Your task to perform on an android device: toggle notification dots Image 0: 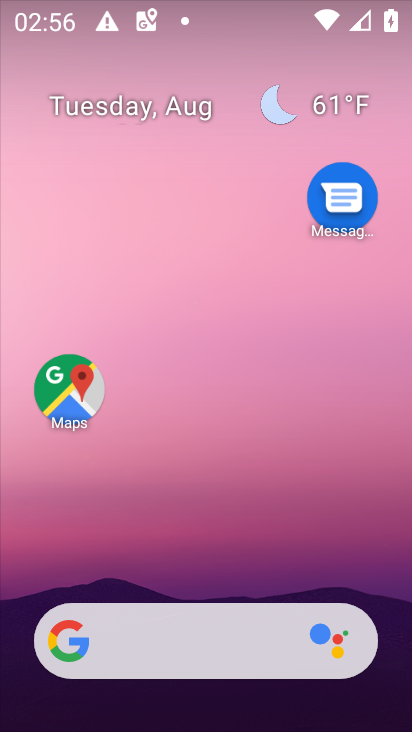
Step 0: drag from (197, 599) to (235, 118)
Your task to perform on an android device: toggle notification dots Image 1: 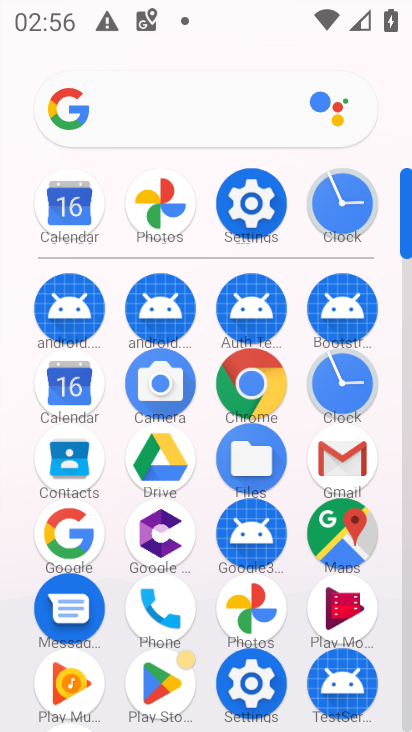
Step 1: click (262, 191)
Your task to perform on an android device: toggle notification dots Image 2: 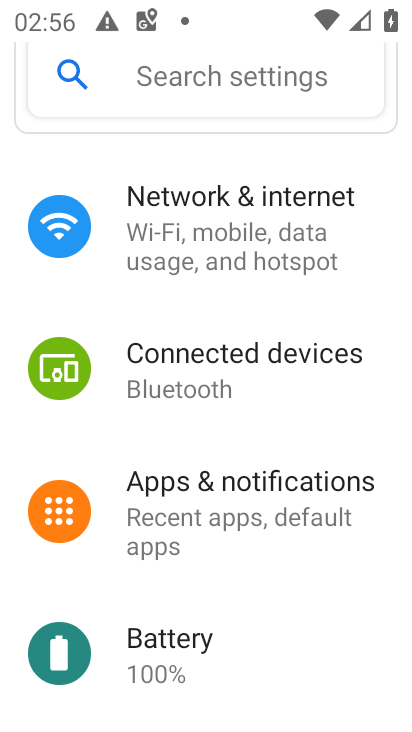
Step 2: drag from (257, 690) to (253, 558)
Your task to perform on an android device: toggle notification dots Image 3: 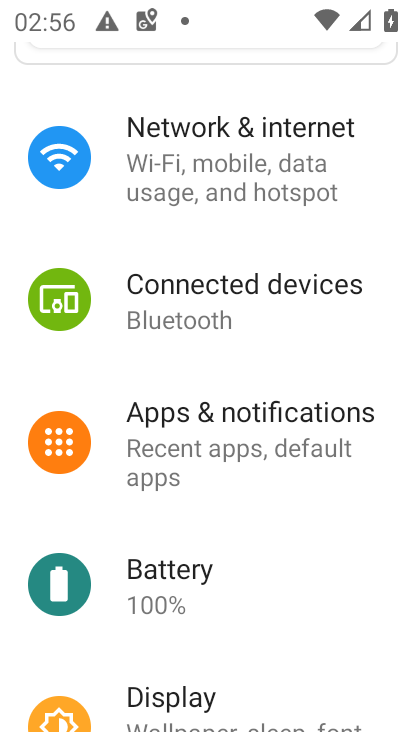
Step 3: click (245, 469)
Your task to perform on an android device: toggle notification dots Image 4: 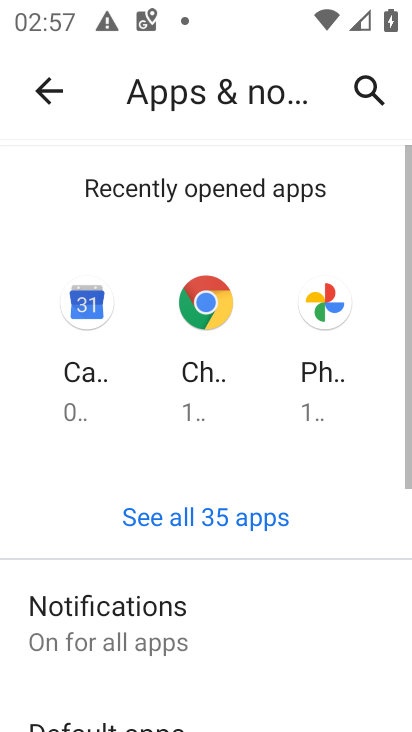
Step 4: drag from (258, 648) to (282, 182)
Your task to perform on an android device: toggle notification dots Image 5: 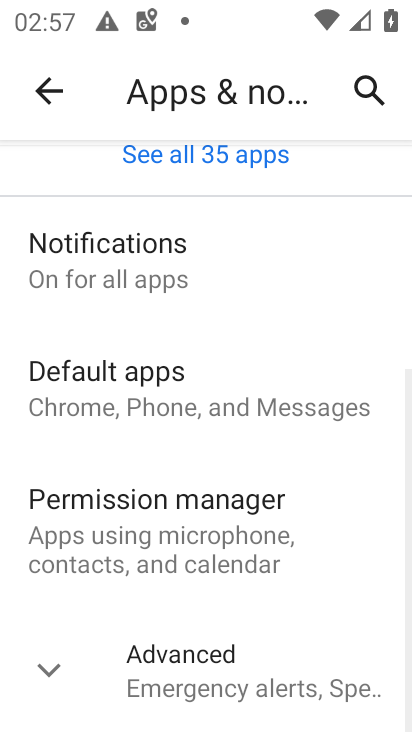
Step 5: drag from (290, 656) to (294, 373)
Your task to perform on an android device: toggle notification dots Image 6: 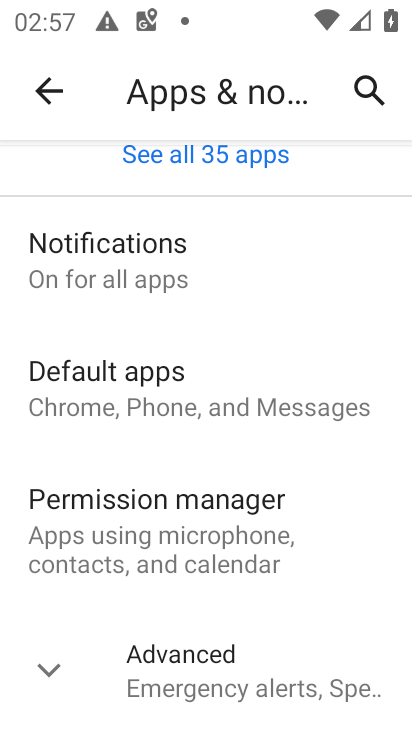
Step 6: click (255, 674)
Your task to perform on an android device: toggle notification dots Image 7: 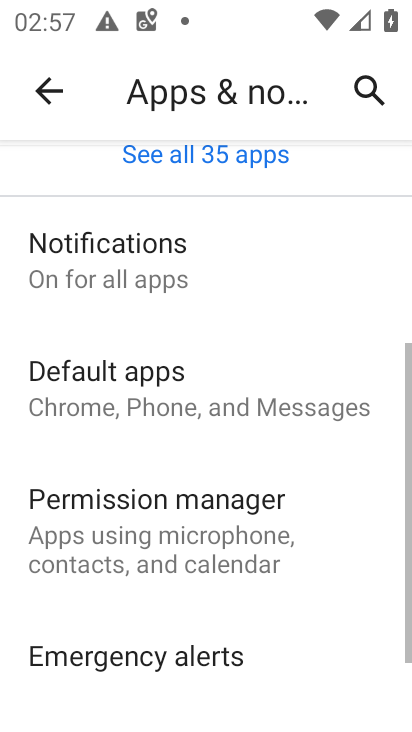
Step 7: drag from (247, 616) to (251, 285)
Your task to perform on an android device: toggle notification dots Image 8: 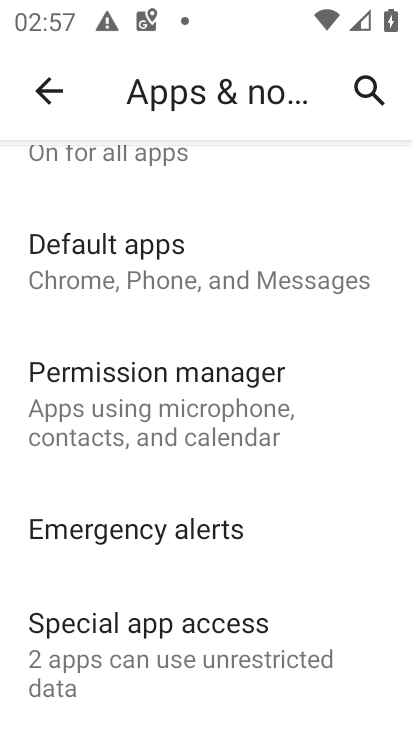
Step 8: drag from (138, 267) to (20, 615)
Your task to perform on an android device: toggle notification dots Image 9: 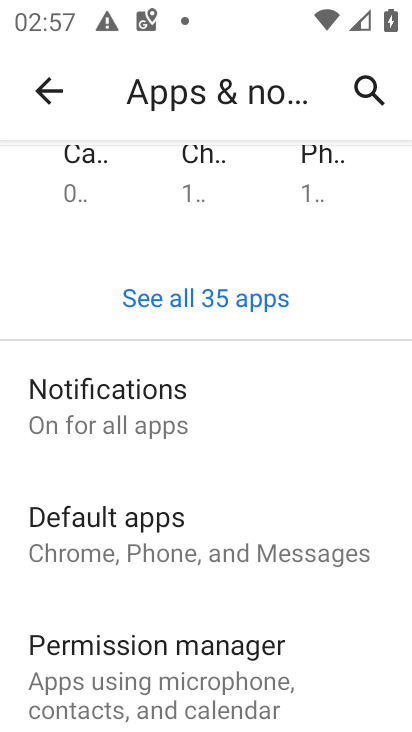
Step 9: click (67, 421)
Your task to perform on an android device: toggle notification dots Image 10: 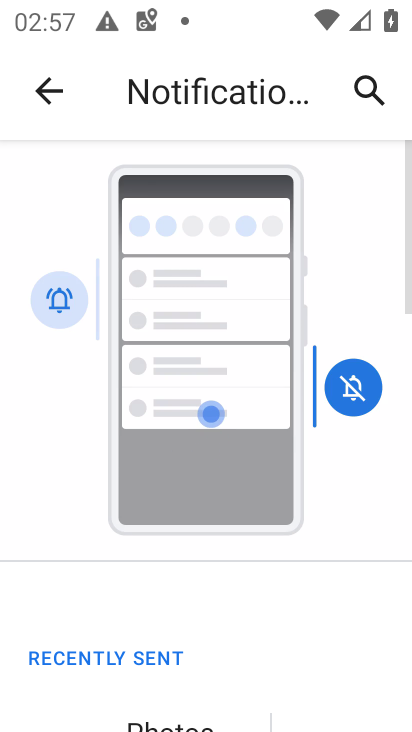
Step 10: drag from (230, 624) to (132, 119)
Your task to perform on an android device: toggle notification dots Image 11: 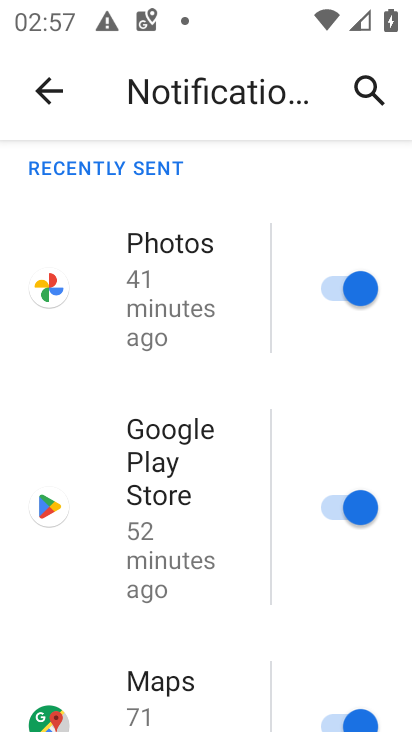
Step 11: drag from (155, 663) to (178, 285)
Your task to perform on an android device: toggle notification dots Image 12: 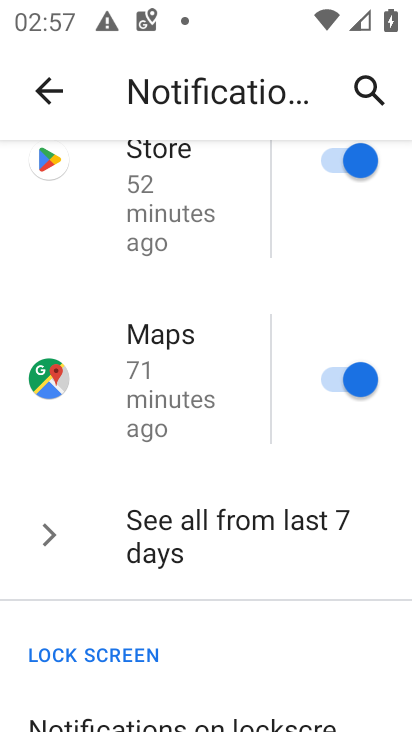
Step 12: drag from (200, 643) to (223, 365)
Your task to perform on an android device: toggle notification dots Image 13: 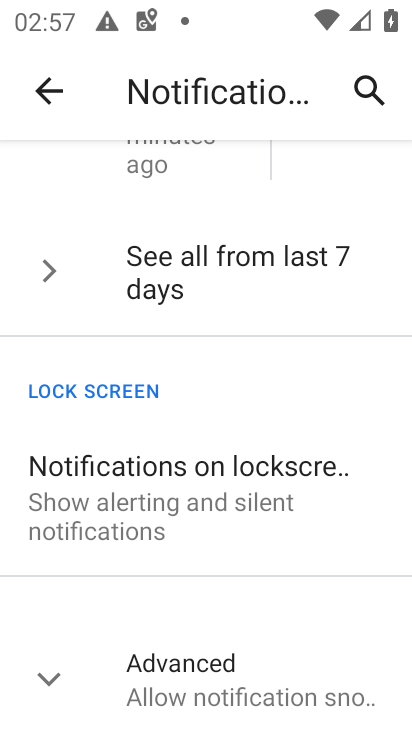
Step 13: drag from (254, 661) to (245, 324)
Your task to perform on an android device: toggle notification dots Image 14: 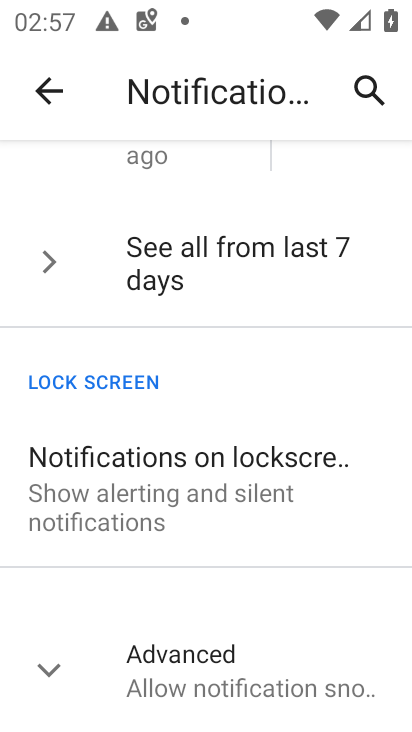
Step 14: click (210, 660)
Your task to perform on an android device: toggle notification dots Image 15: 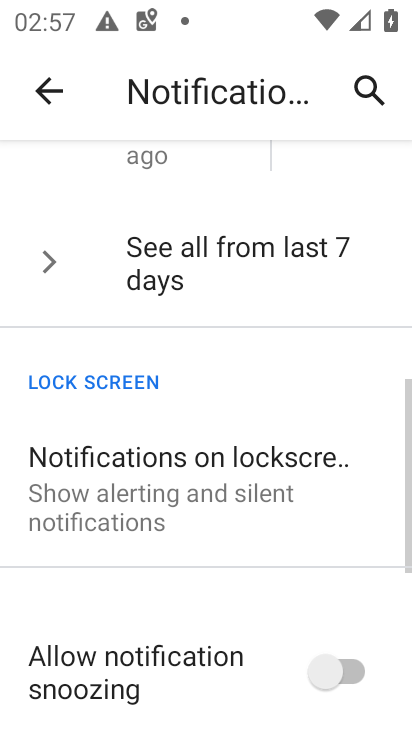
Step 15: drag from (228, 577) to (228, 455)
Your task to perform on an android device: toggle notification dots Image 16: 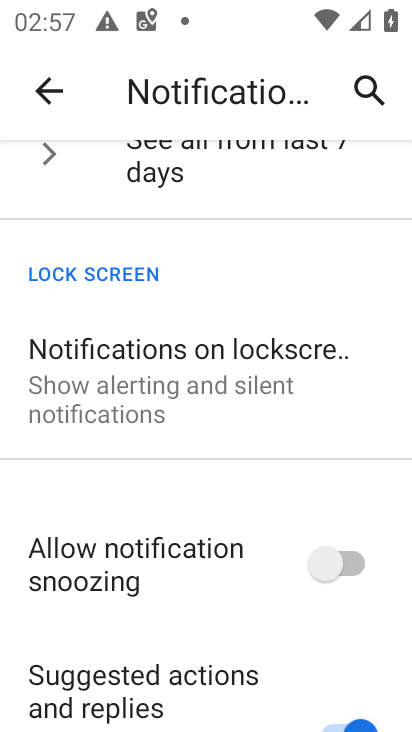
Step 16: drag from (259, 656) to (263, 353)
Your task to perform on an android device: toggle notification dots Image 17: 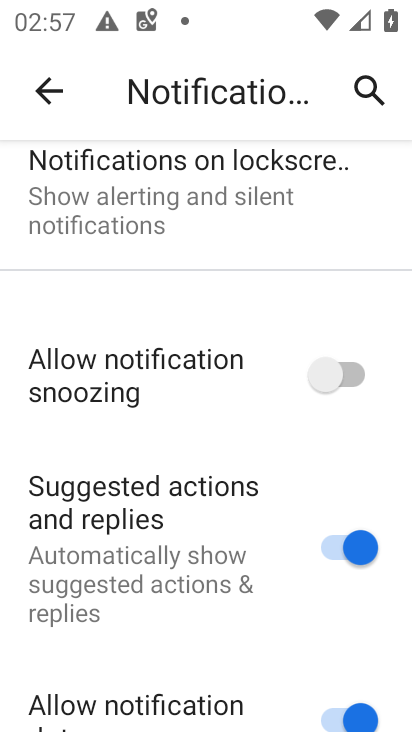
Step 17: click (307, 702)
Your task to perform on an android device: toggle notification dots Image 18: 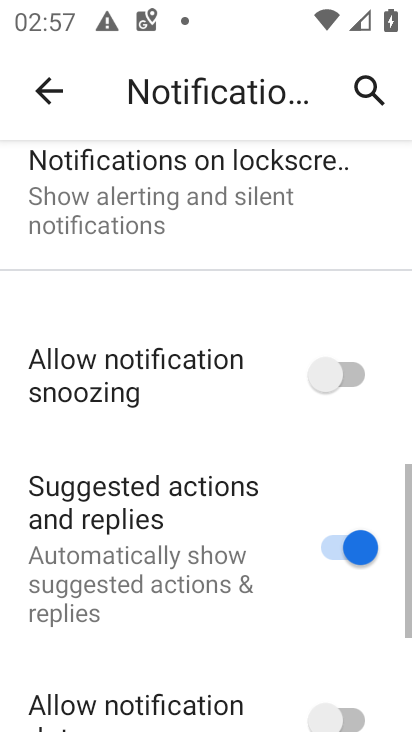
Step 18: task complete